Your task to perform on an android device: Go to CNN.com Image 0: 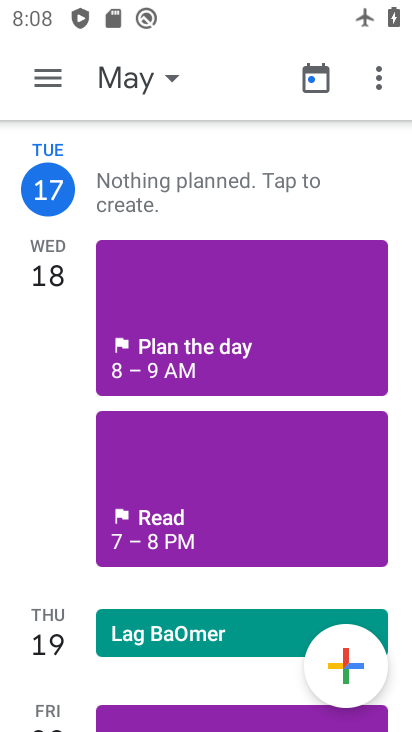
Step 0: press home button
Your task to perform on an android device: Go to CNN.com Image 1: 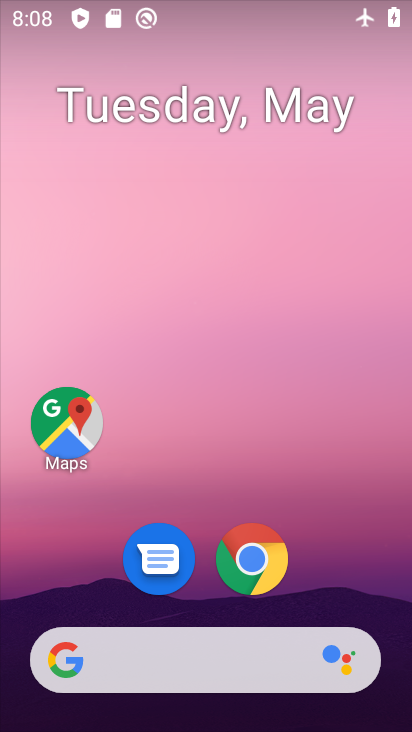
Step 1: click (245, 570)
Your task to perform on an android device: Go to CNN.com Image 2: 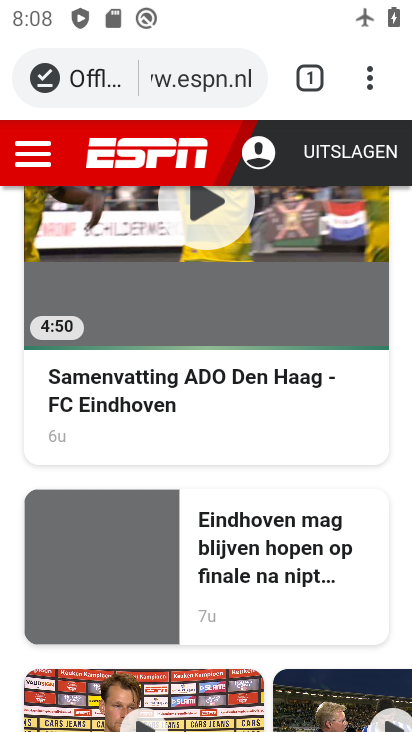
Step 2: click (310, 72)
Your task to perform on an android device: Go to CNN.com Image 3: 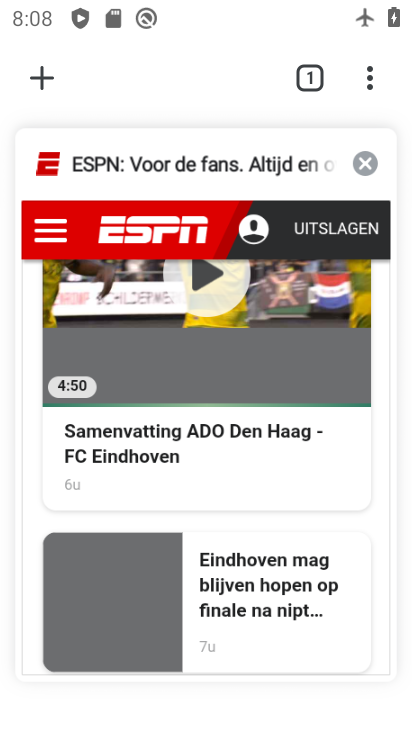
Step 3: click (32, 74)
Your task to perform on an android device: Go to CNN.com Image 4: 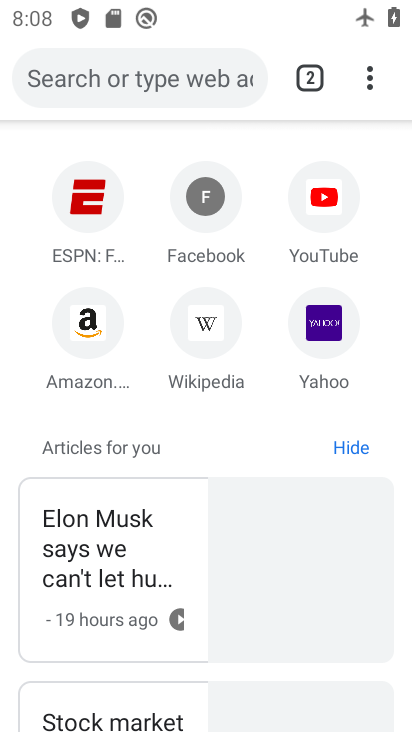
Step 4: click (136, 72)
Your task to perform on an android device: Go to CNN.com Image 5: 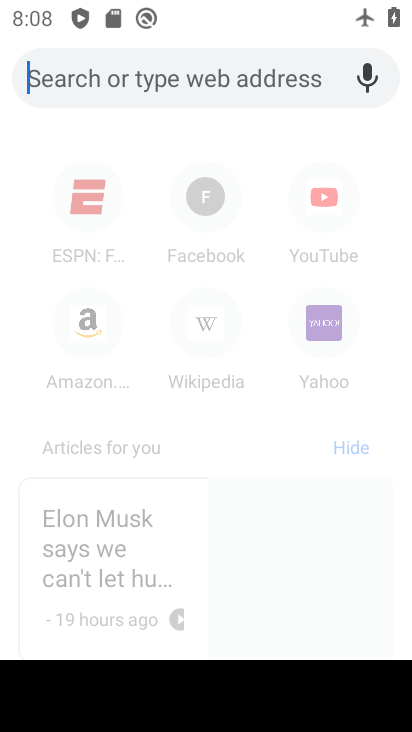
Step 5: type "CNN.com"
Your task to perform on an android device: Go to CNN.com Image 6: 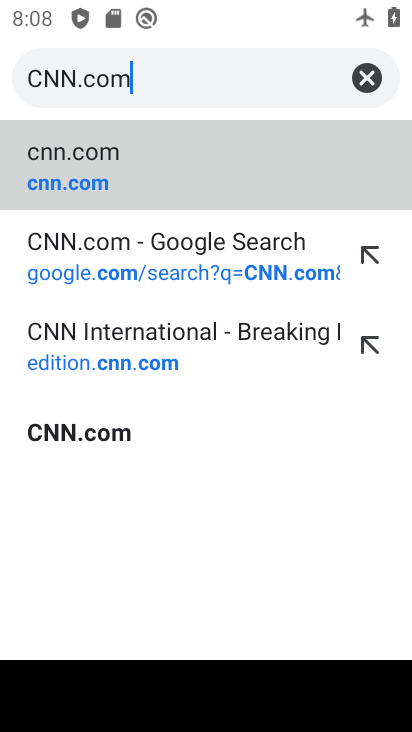
Step 6: click (236, 146)
Your task to perform on an android device: Go to CNN.com Image 7: 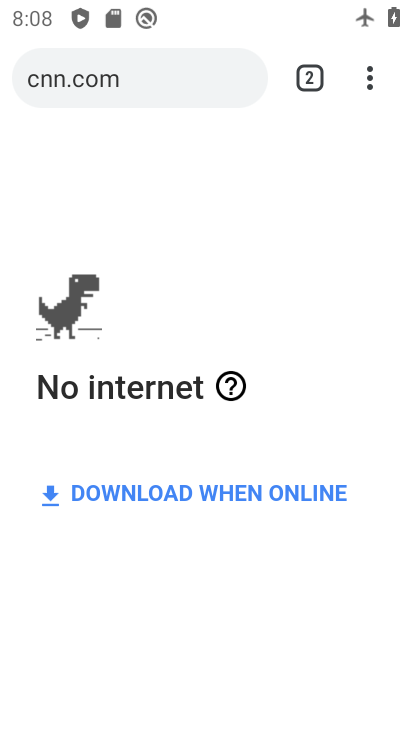
Step 7: task complete